Your task to perform on an android device: Do I have any events tomorrow? Image 0: 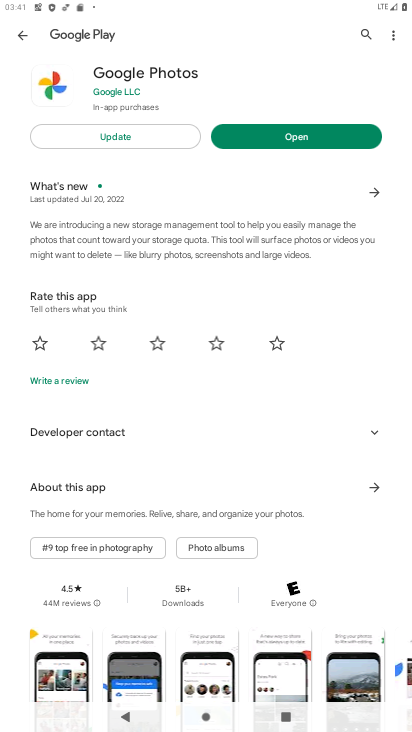
Step 0: press home button
Your task to perform on an android device: Do I have any events tomorrow? Image 1: 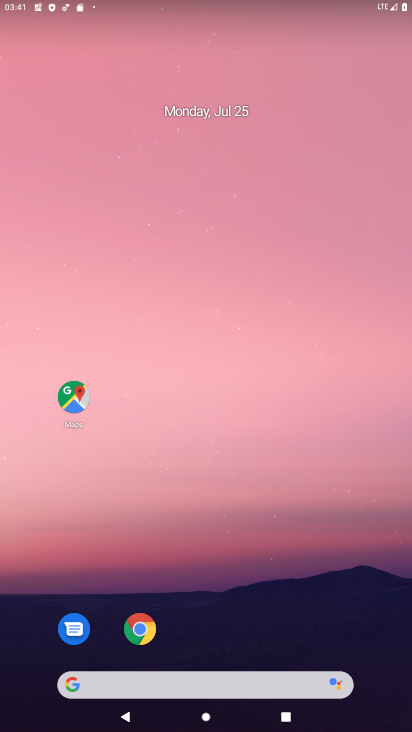
Step 1: drag from (244, 642) to (272, 8)
Your task to perform on an android device: Do I have any events tomorrow? Image 2: 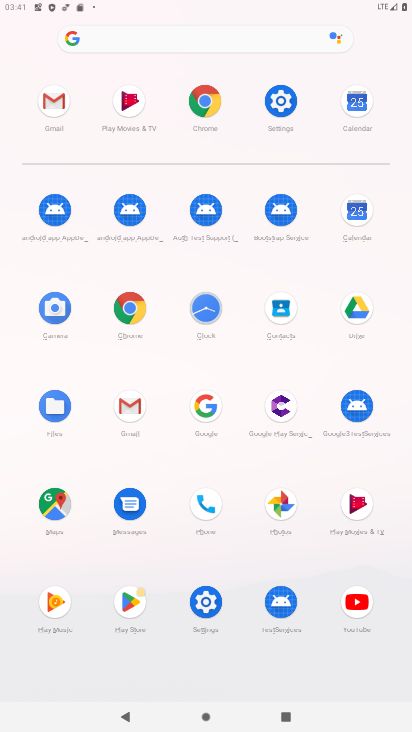
Step 2: click (350, 100)
Your task to perform on an android device: Do I have any events tomorrow? Image 3: 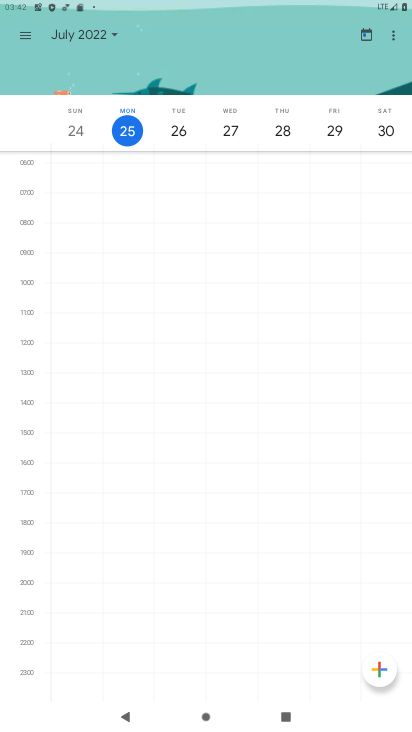
Step 3: click (39, 38)
Your task to perform on an android device: Do I have any events tomorrow? Image 4: 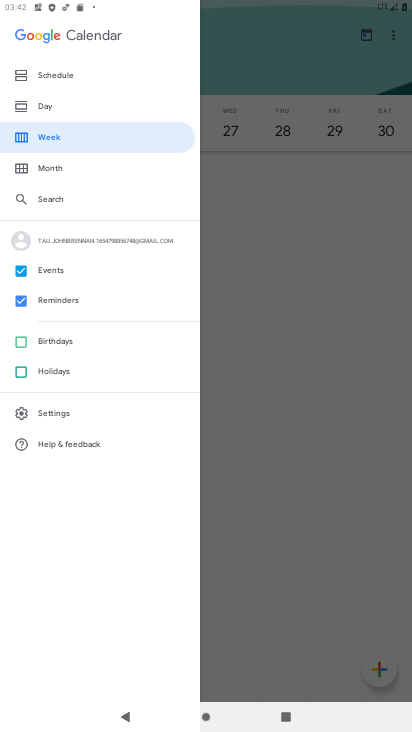
Step 4: click (46, 103)
Your task to perform on an android device: Do I have any events tomorrow? Image 5: 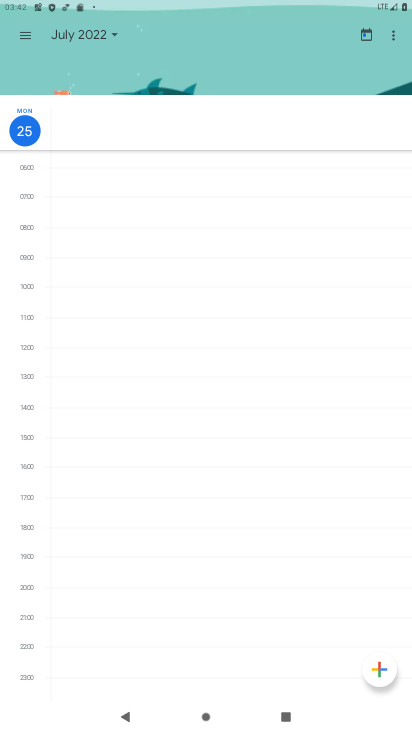
Step 5: click (29, 34)
Your task to perform on an android device: Do I have any events tomorrow? Image 6: 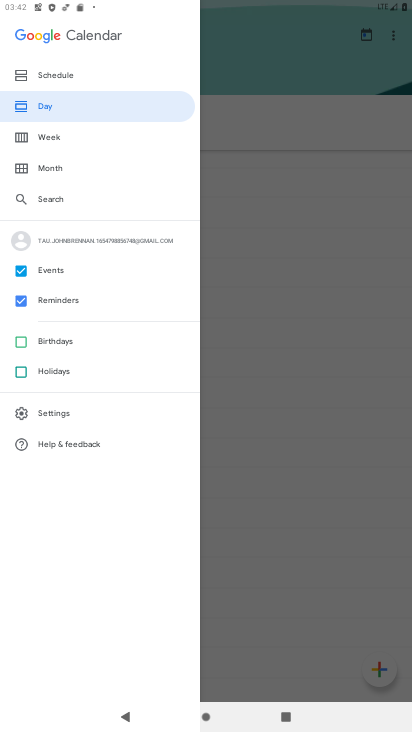
Step 6: click (48, 76)
Your task to perform on an android device: Do I have any events tomorrow? Image 7: 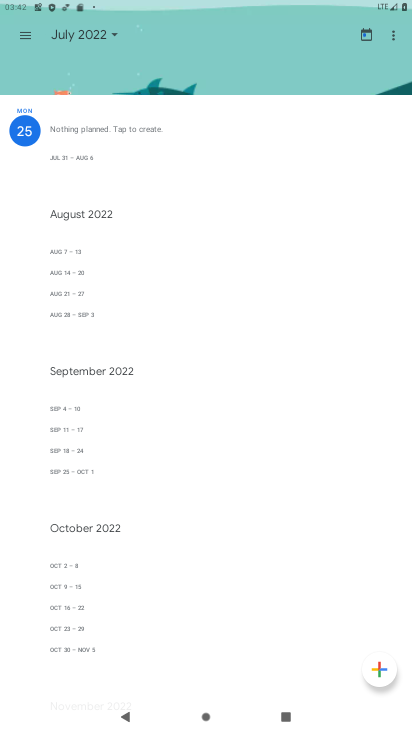
Step 7: click (58, 157)
Your task to perform on an android device: Do I have any events tomorrow? Image 8: 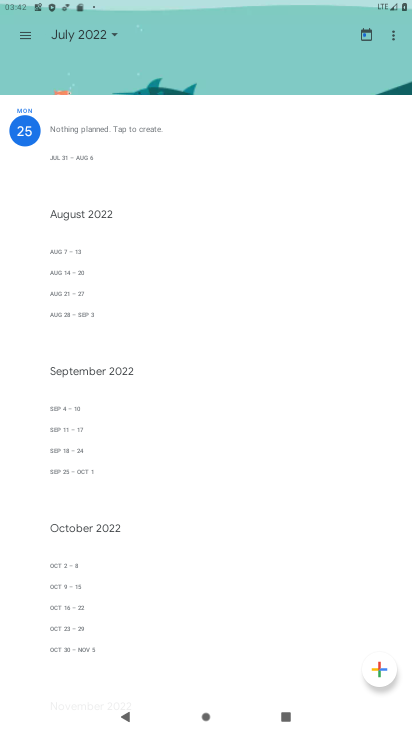
Step 8: click (80, 155)
Your task to perform on an android device: Do I have any events tomorrow? Image 9: 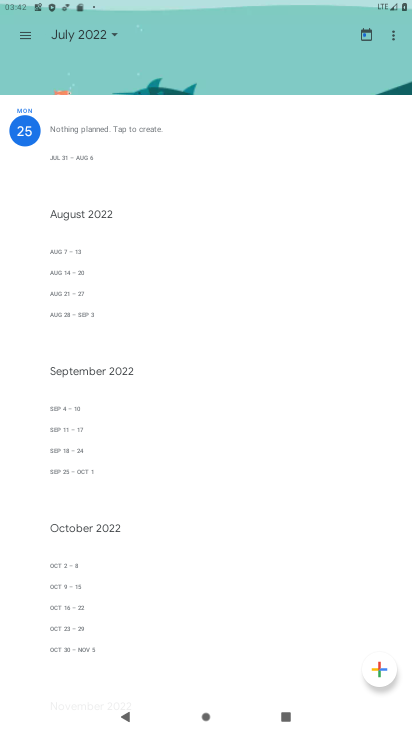
Step 9: click (116, 36)
Your task to perform on an android device: Do I have any events tomorrow? Image 10: 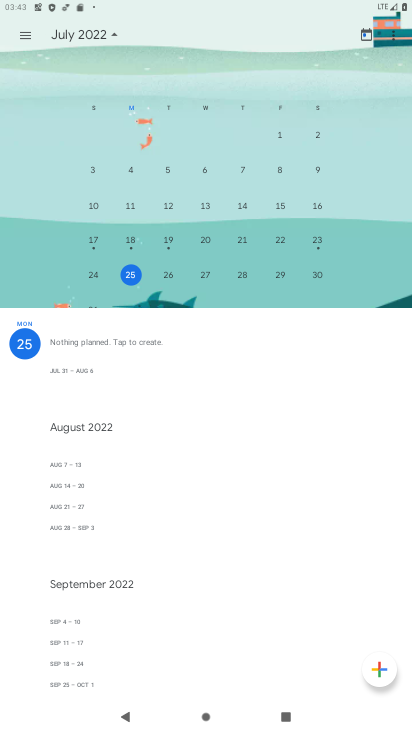
Step 10: click (168, 277)
Your task to perform on an android device: Do I have any events tomorrow? Image 11: 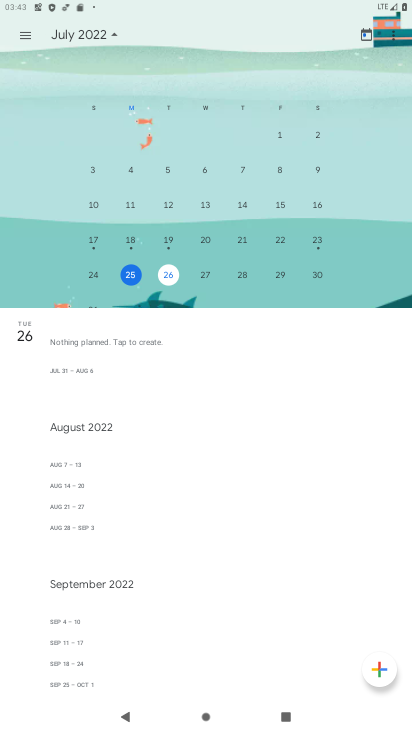
Step 11: click (71, 345)
Your task to perform on an android device: Do I have any events tomorrow? Image 12: 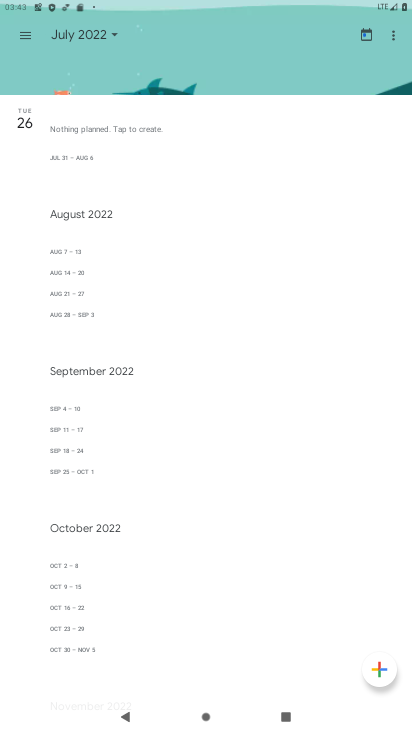
Step 12: click (66, 134)
Your task to perform on an android device: Do I have any events tomorrow? Image 13: 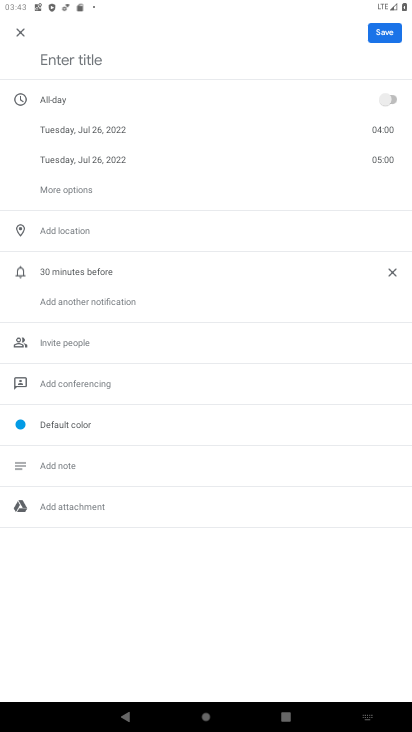
Step 13: task complete